Your task to perform on an android device: turn off notifications in google photos Image 0: 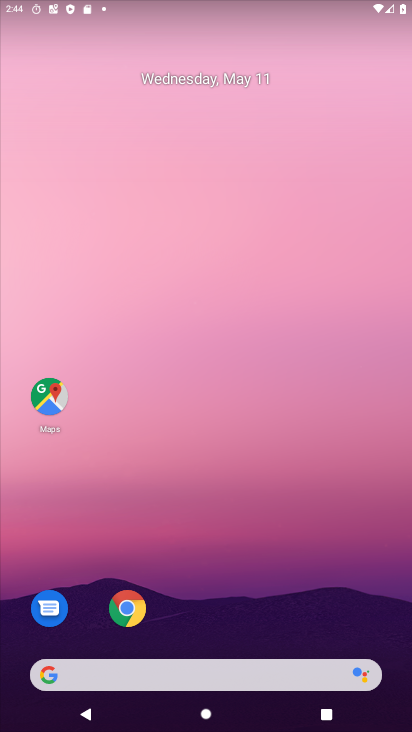
Step 0: drag from (158, 586) to (209, 357)
Your task to perform on an android device: turn off notifications in google photos Image 1: 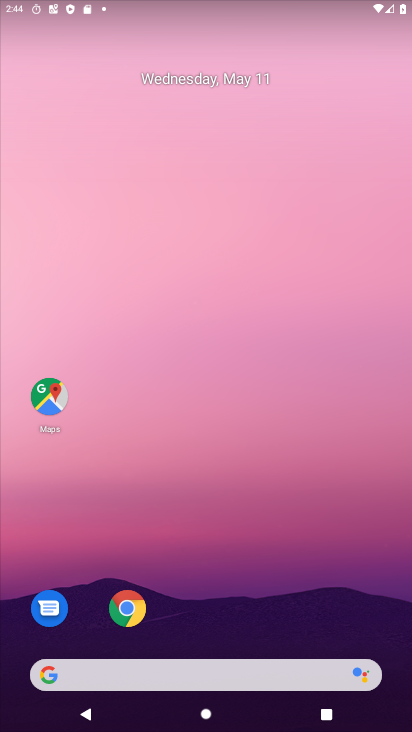
Step 1: drag from (186, 692) to (330, 392)
Your task to perform on an android device: turn off notifications in google photos Image 2: 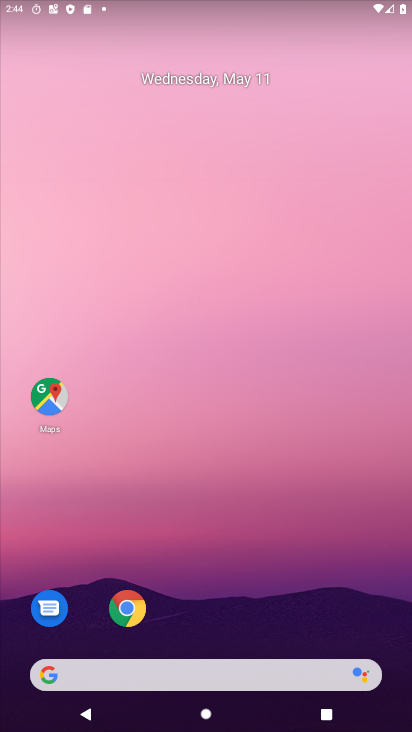
Step 2: drag from (284, 728) to (381, 290)
Your task to perform on an android device: turn off notifications in google photos Image 3: 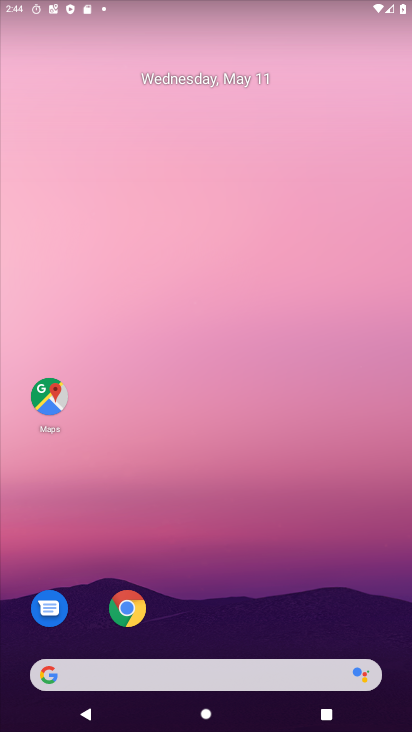
Step 3: drag from (306, 699) to (410, 232)
Your task to perform on an android device: turn off notifications in google photos Image 4: 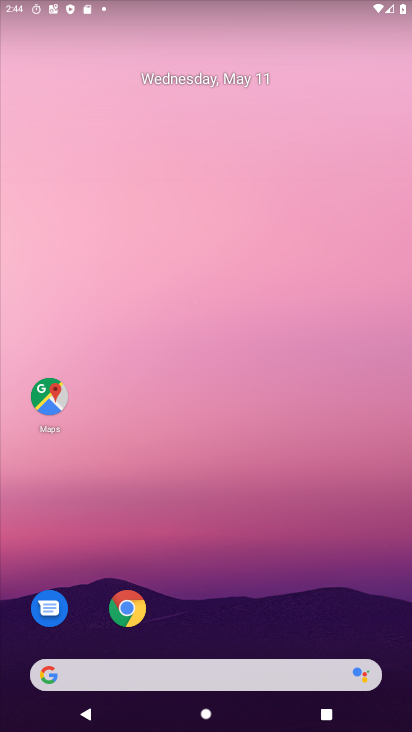
Step 4: drag from (250, 443) to (275, 156)
Your task to perform on an android device: turn off notifications in google photos Image 5: 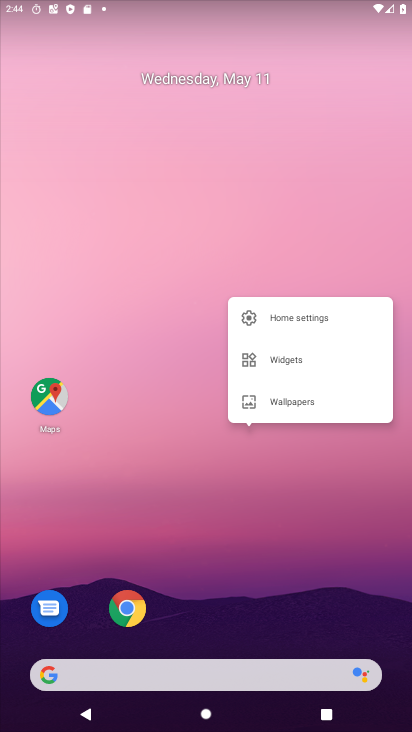
Step 5: click (260, 557)
Your task to perform on an android device: turn off notifications in google photos Image 6: 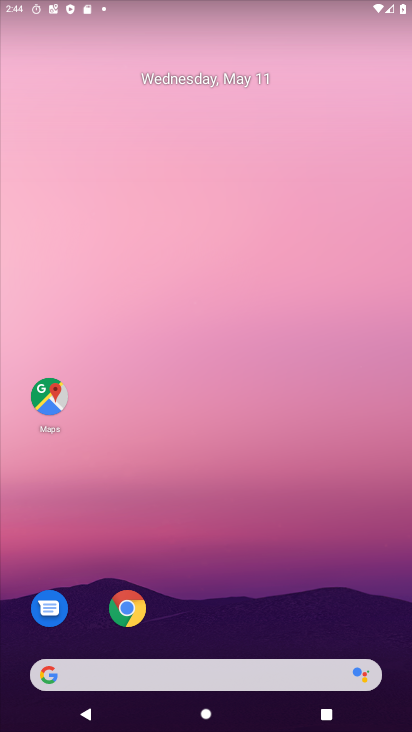
Step 6: drag from (248, 621) to (329, 230)
Your task to perform on an android device: turn off notifications in google photos Image 7: 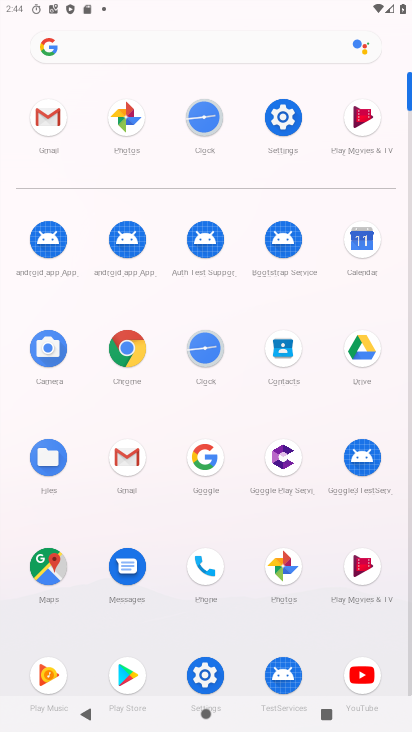
Step 7: click (144, 131)
Your task to perform on an android device: turn off notifications in google photos Image 8: 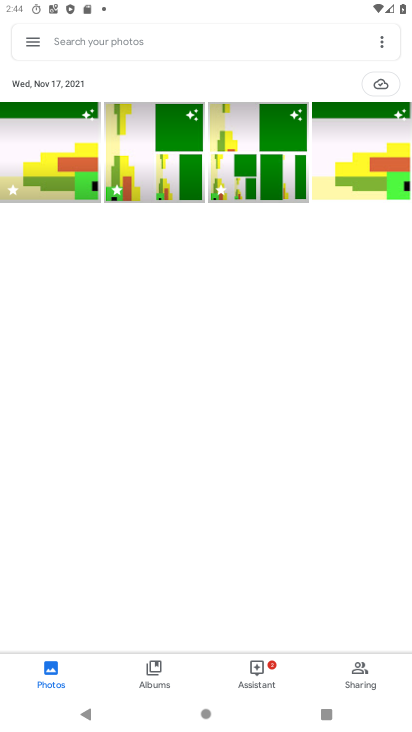
Step 8: click (28, 27)
Your task to perform on an android device: turn off notifications in google photos Image 9: 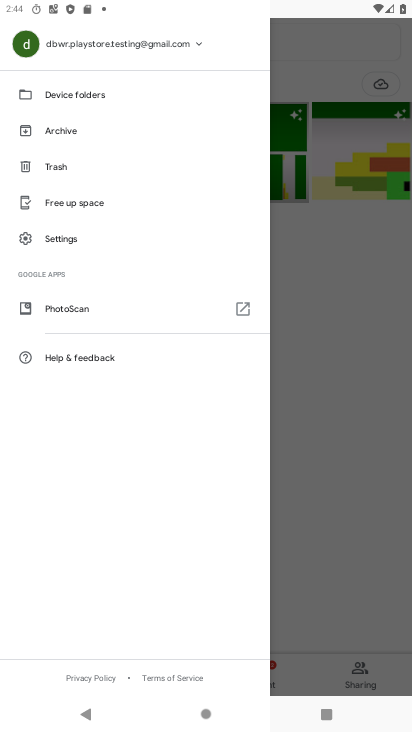
Step 9: click (43, 231)
Your task to perform on an android device: turn off notifications in google photos Image 10: 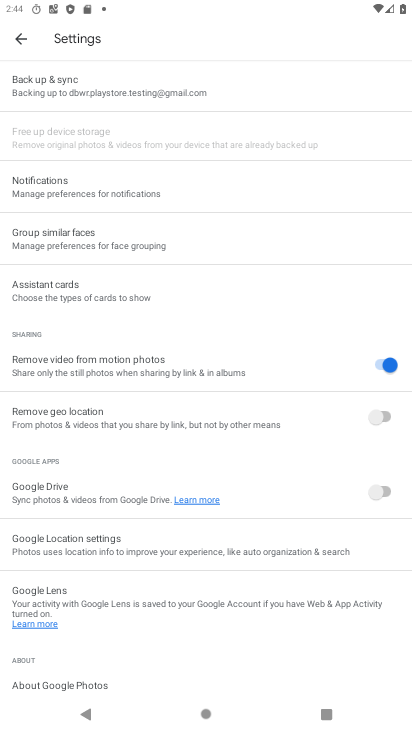
Step 10: click (142, 190)
Your task to perform on an android device: turn off notifications in google photos Image 11: 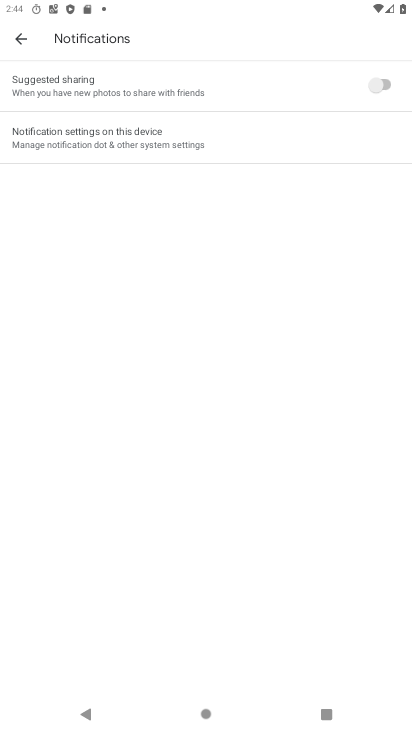
Step 11: click (269, 140)
Your task to perform on an android device: turn off notifications in google photos Image 12: 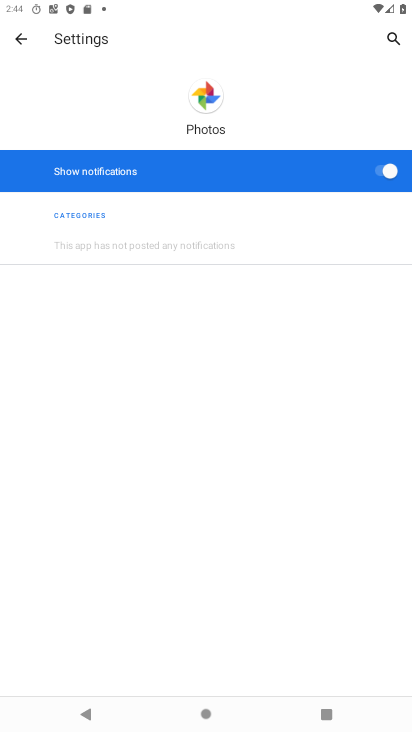
Step 12: click (401, 171)
Your task to perform on an android device: turn off notifications in google photos Image 13: 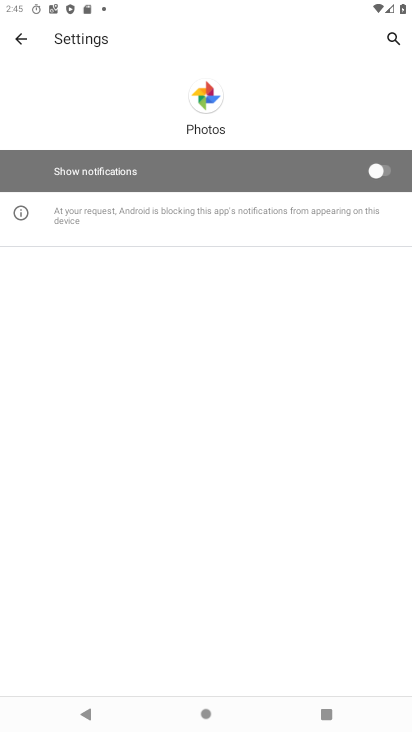
Step 13: task complete